Your task to perform on an android device: Open display settings Image 0: 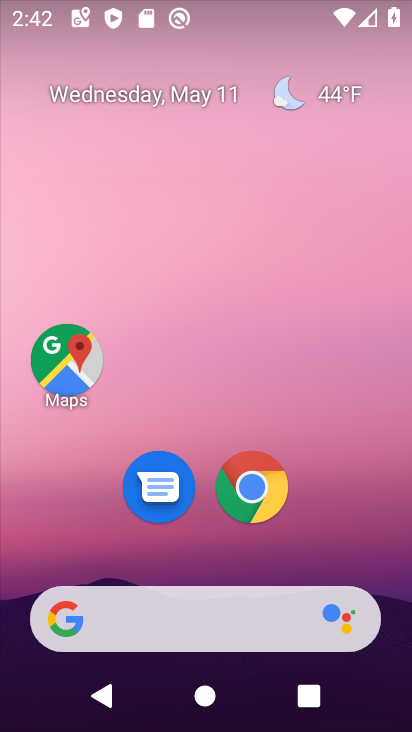
Step 0: drag from (203, 554) to (307, 34)
Your task to perform on an android device: Open display settings Image 1: 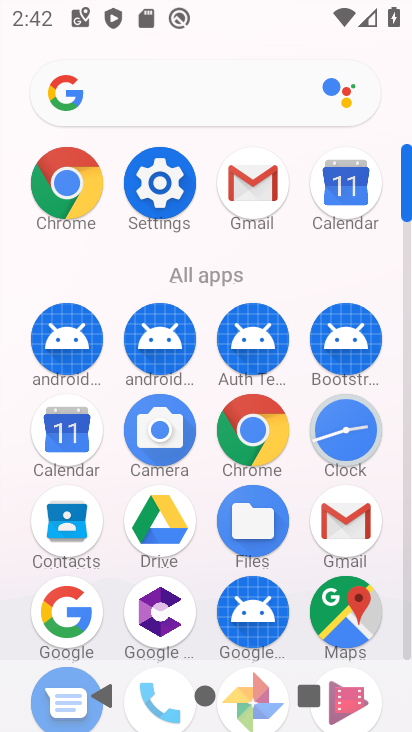
Step 1: click (169, 184)
Your task to perform on an android device: Open display settings Image 2: 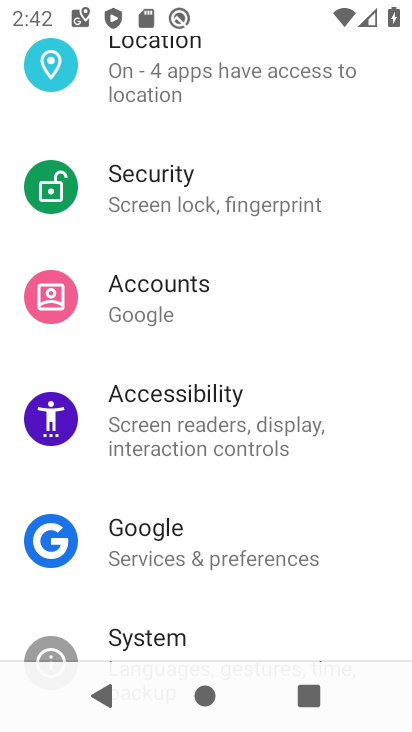
Step 2: drag from (247, 175) to (181, 713)
Your task to perform on an android device: Open display settings Image 3: 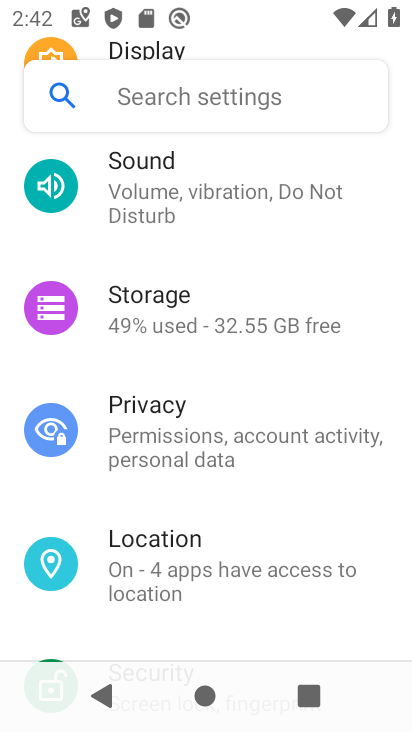
Step 3: drag from (209, 222) to (213, 727)
Your task to perform on an android device: Open display settings Image 4: 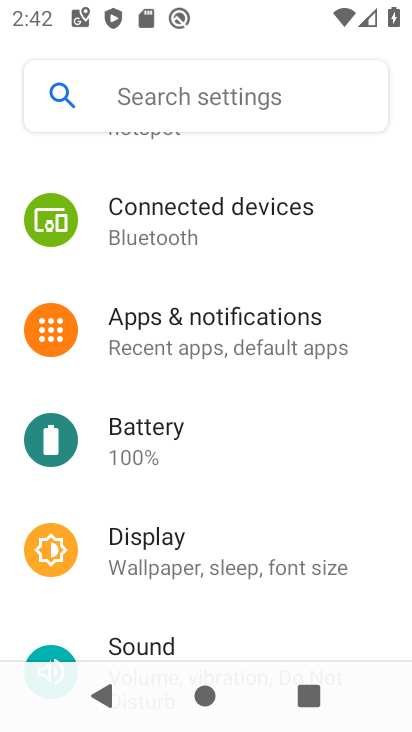
Step 4: click (148, 537)
Your task to perform on an android device: Open display settings Image 5: 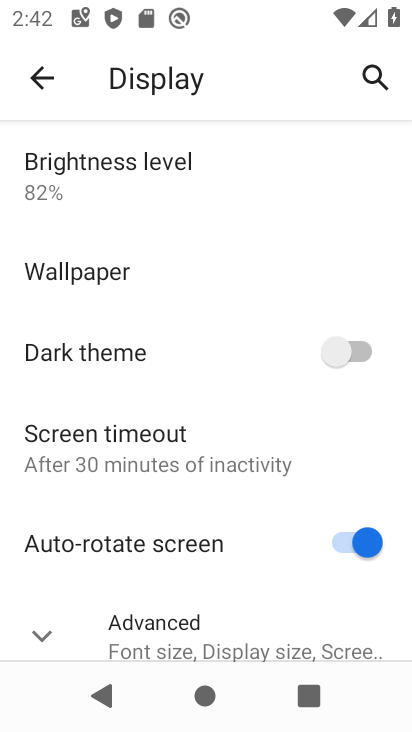
Step 5: task complete